Your task to perform on an android device: Open Youtube and go to the subscriptions tab Image 0: 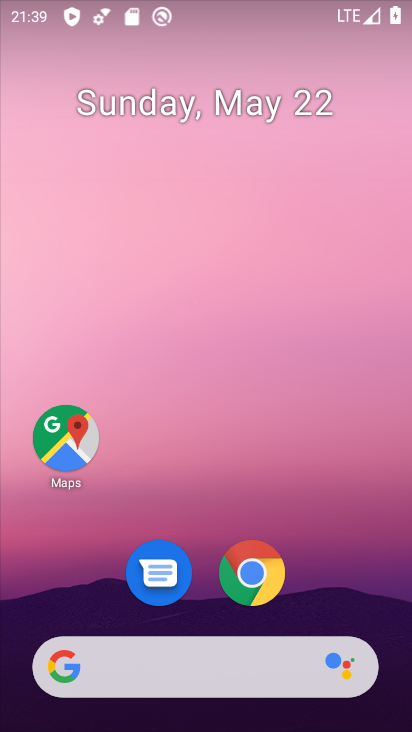
Step 0: drag from (371, 540) to (357, 159)
Your task to perform on an android device: Open Youtube and go to the subscriptions tab Image 1: 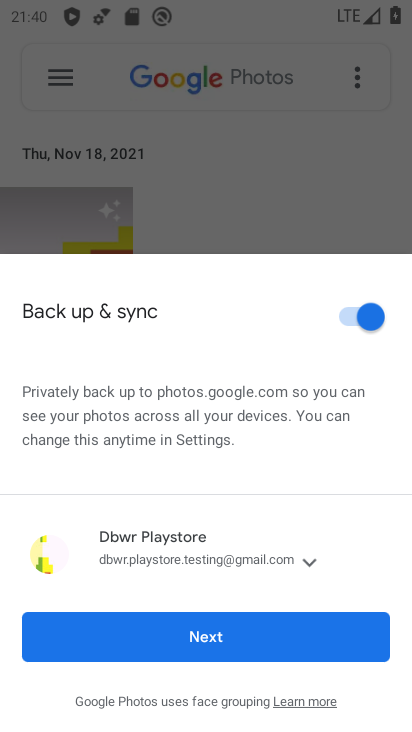
Step 1: press home button
Your task to perform on an android device: Open Youtube and go to the subscriptions tab Image 2: 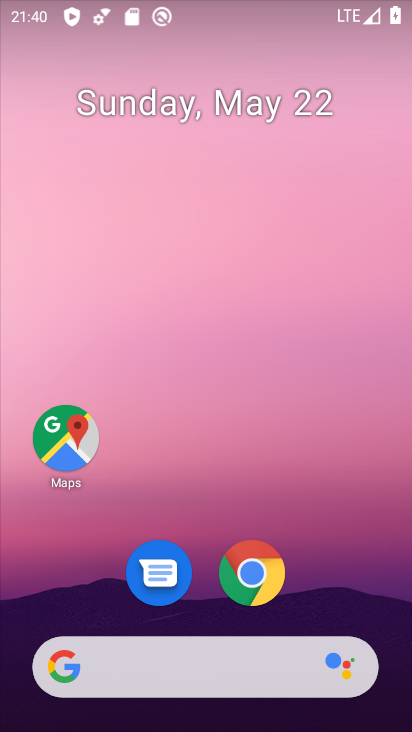
Step 2: drag from (342, 548) to (266, 106)
Your task to perform on an android device: Open Youtube and go to the subscriptions tab Image 3: 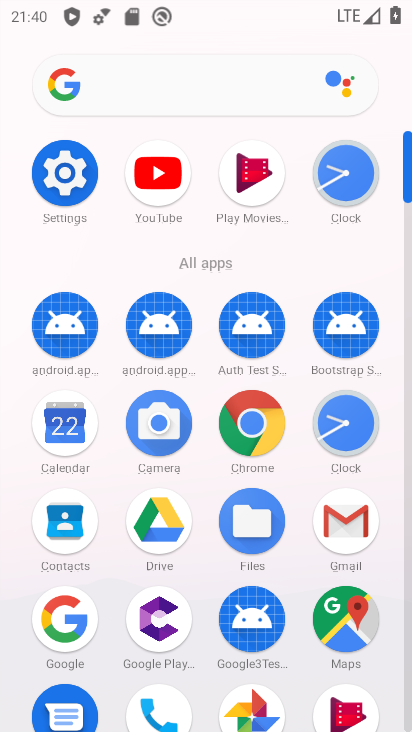
Step 3: click (155, 205)
Your task to perform on an android device: Open Youtube and go to the subscriptions tab Image 4: 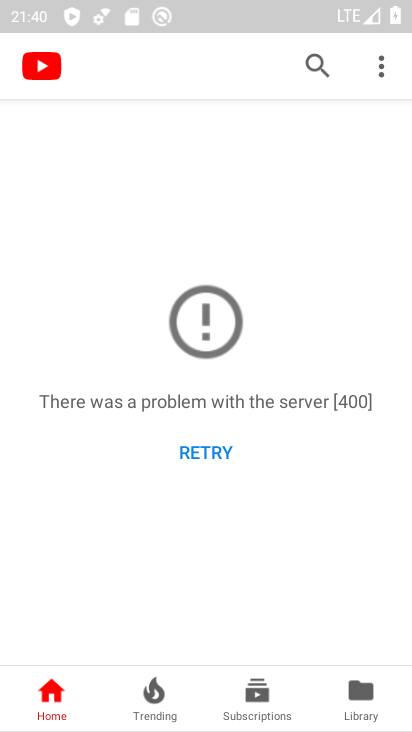
Step 4: task complete